Your task to perform on an android device: open app "Duolingo: language lessons" Image 0: 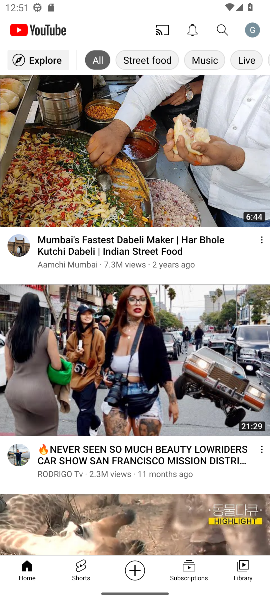
Step 0: press home button
Your task to perform on an android device: open app "Duolingo: language lessons" Image 1: 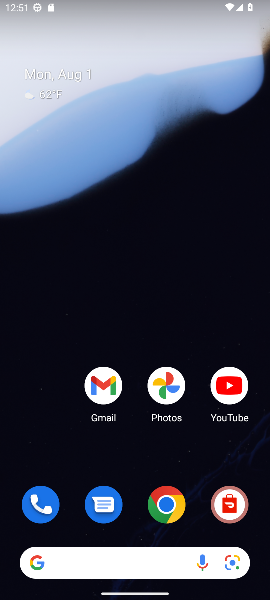
Step 1: drag from (136, 565) to (171, 15)
Your task to perform on an android device: open app "Duolingo: language lessons" Image 2: 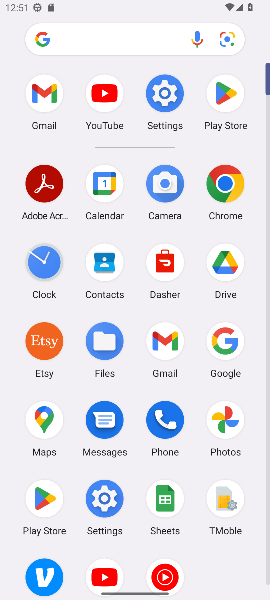
Step 2: click (237, 102)
Your task to perform on an android device: open app "Duolingo: language lessons" Image 3: 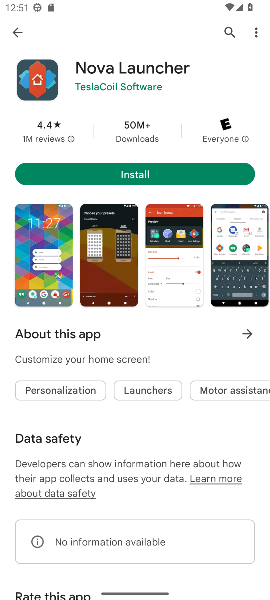
Step 3: click (228, 24)
Your task to perform on an android device: open app "Duolingo: language lessons" Image 4: 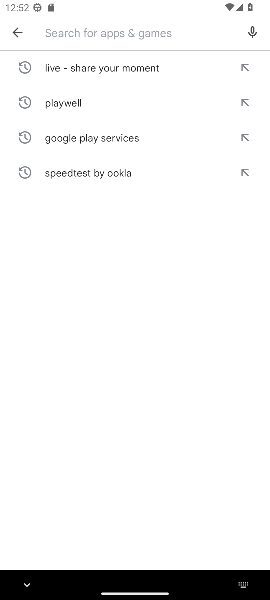
Step 4: type "duolingo: language lessons"
Your task to perform on an android device: open app "Duolingo: language lessons" Image 5: 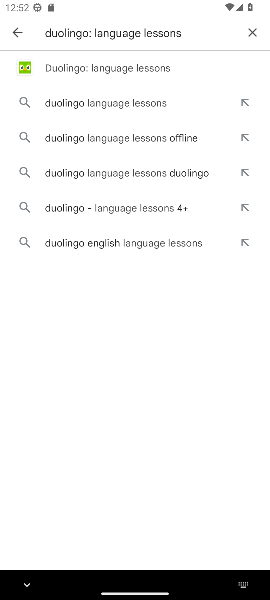
Step 5: click (187, 66)
Your task to perform on an android device: open app "Duolingo: language lessons" Image 6: 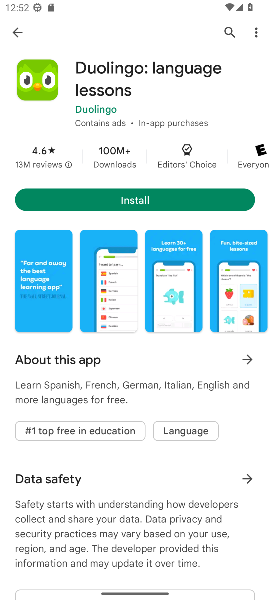
Step 6: task complete